Your task to perform on an android device: Search for seafood restaurants on Google Maps Image 0: 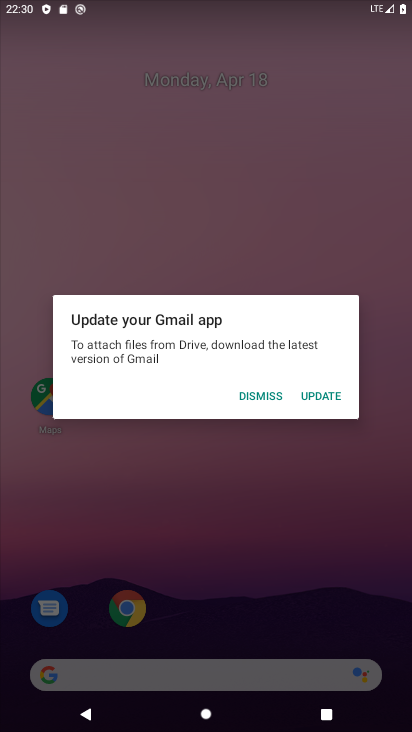
Step 0: press home button
Your task to perform on an android device: Search for seafood restaurants on Google Maps Image 1: 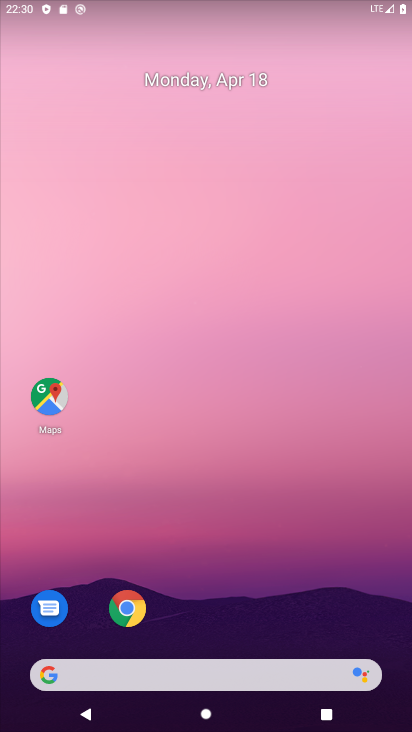
Step 1: click (60, 397)
Your task to perform on an android device: Search for seafood restaurants on Google Maps Image 2: 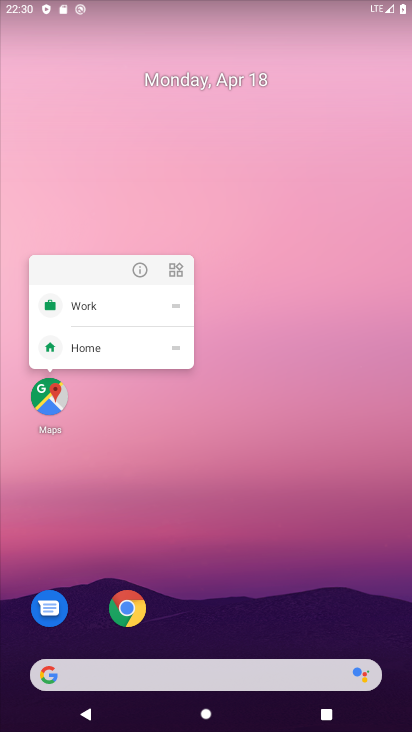
Step 2: click (43, 396)
Your task to perform on an android device: Search for seafood restaurants on Google Maps Image 3: 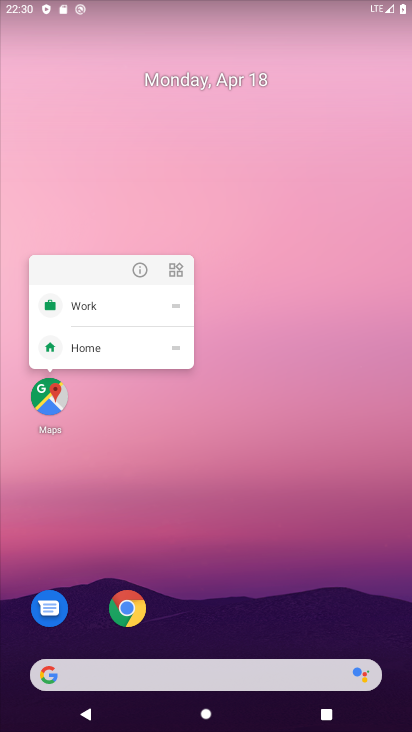
Step 3: click (48, 403)
Your task to perform on an android device: Search for seafood restaurants on Google Maps Image 4: 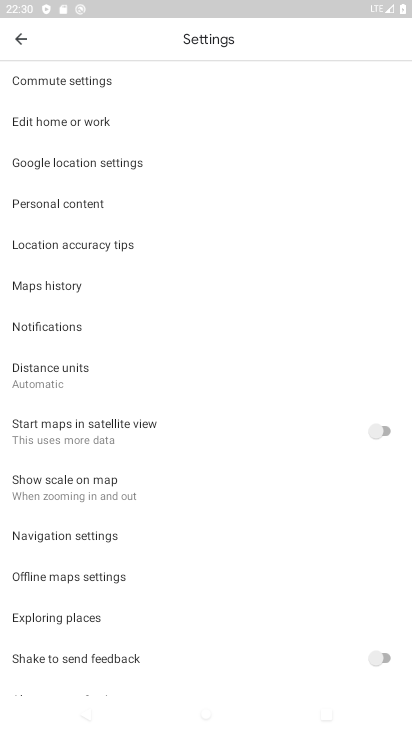
Step 4: click (20, 41)
Your task to perform on an android device: Search for seafood restaurants on Google Maps Image 5: 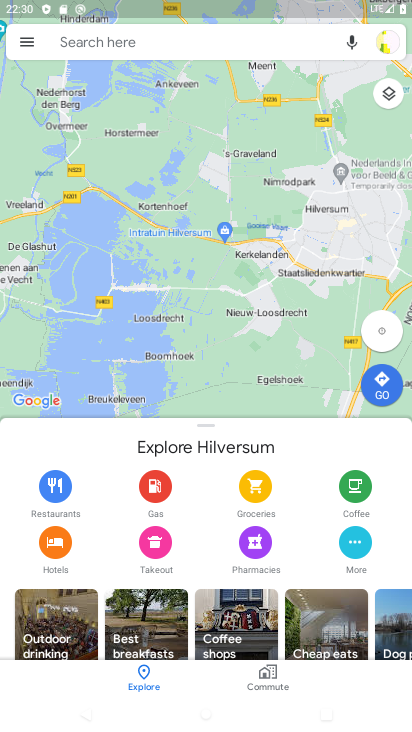
Step 5: click (106, 44)
Your task to perform on an android device: Search for seafood restaurants on Google Maps Image 6: 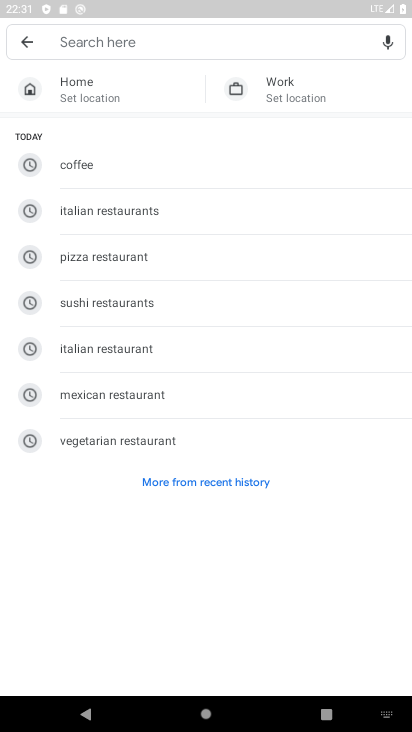
Step 6: type "seafood restaurants"
Your task to perform on an android device: Search for seafood restaurants on Google Maps Image 7: 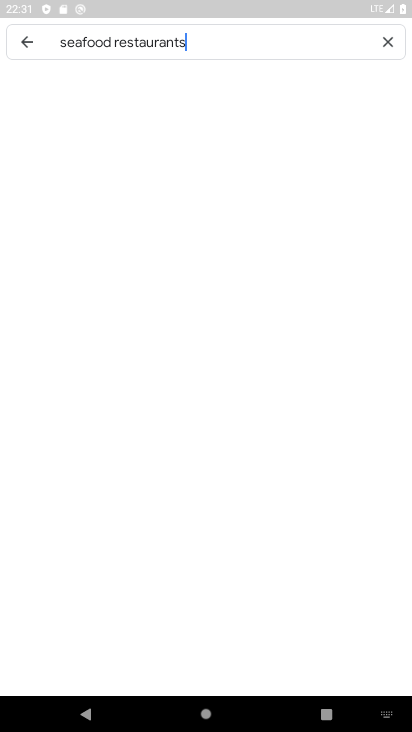
Step 7: type ""
Your task to perform on an android device: Search for seafood restaurants on Google Maps Image 8: 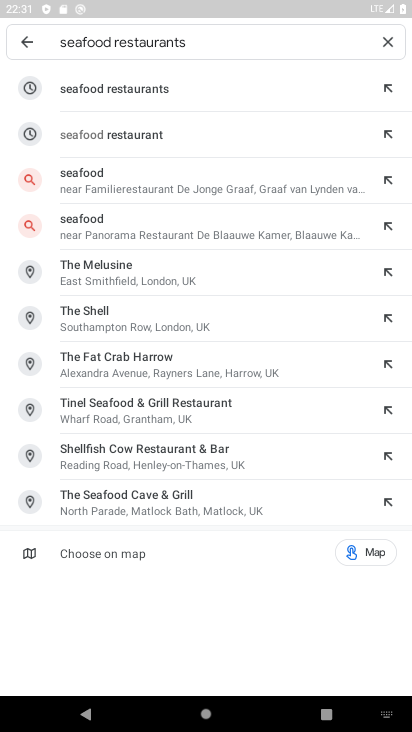
Step 8: click (163, 83)
Your task to perform on an android device: Search for seafood restaurants on Google Maps Image 9: 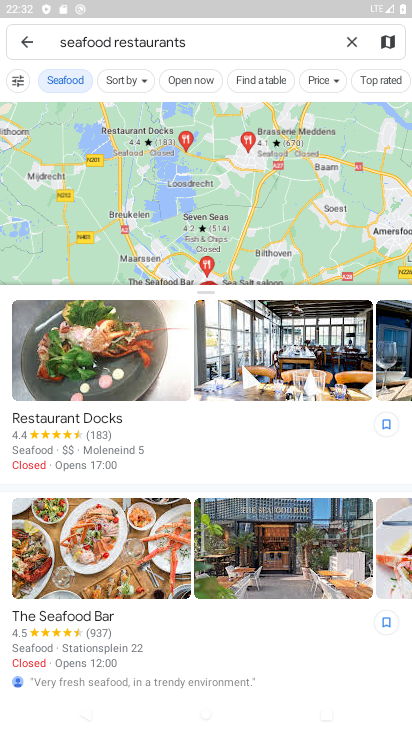
Step 9: task complete